Your task to perform on an android device: Show me the alarms in the clock app Image 0: 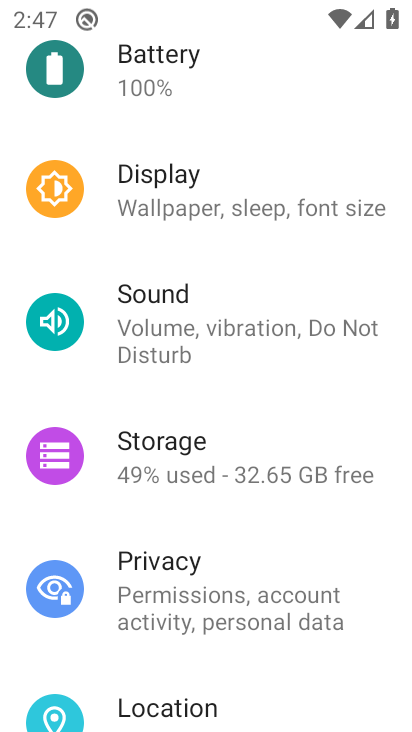
Step 0: press home button
Your task to perform on an android device: Show me the alarms in the clock app Image 1: 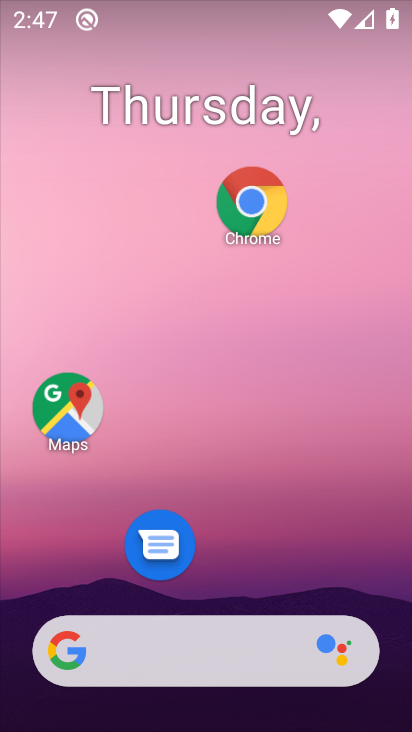
Step 1: drag from (214, 610) to (260, 86)
Your task to perform on an android device: Show me the alarms in the clock app Image 2: 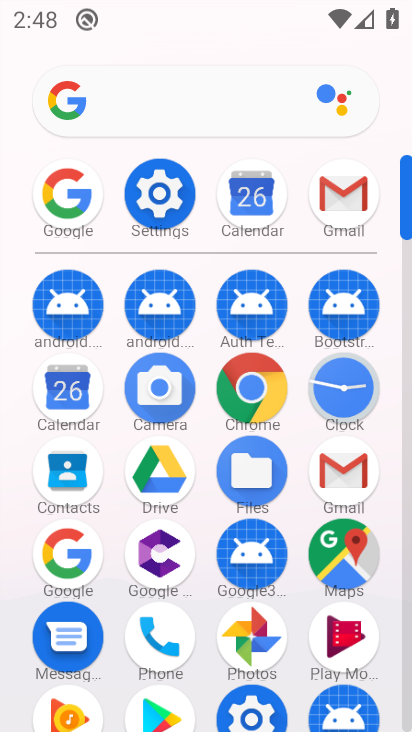
Step 2: click (319, 402)
Your task to perform on an android device: Show me the alarms in the clock app Image 3: 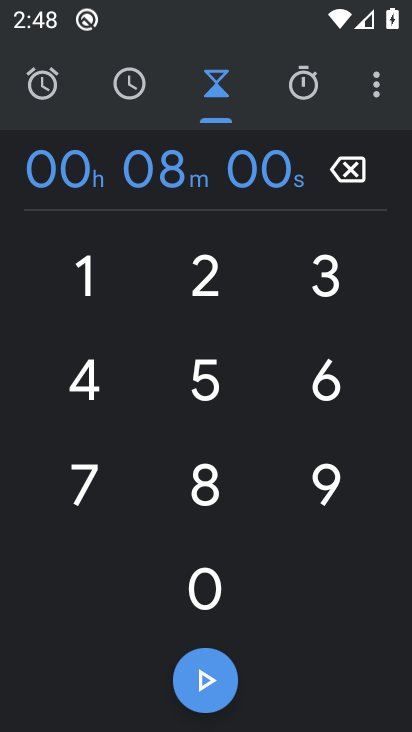
Step 3: click (51, 78)
Your task to perform on an android device: Show me the alarms in the clock app Image 4: 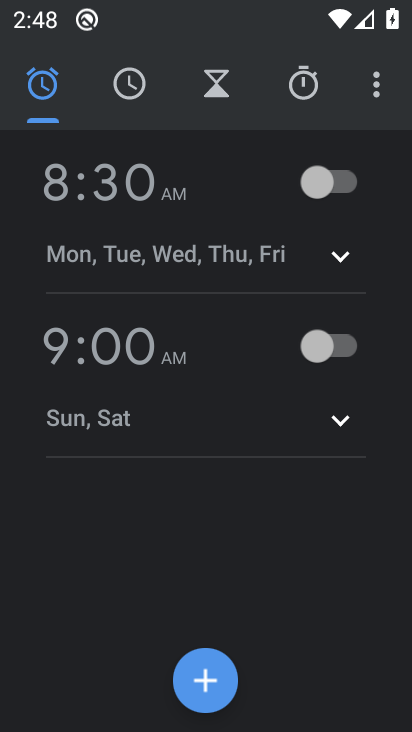
Step 4: task complete